Your task to perform on an android device: toggle javascript in the chrome app Image 0: 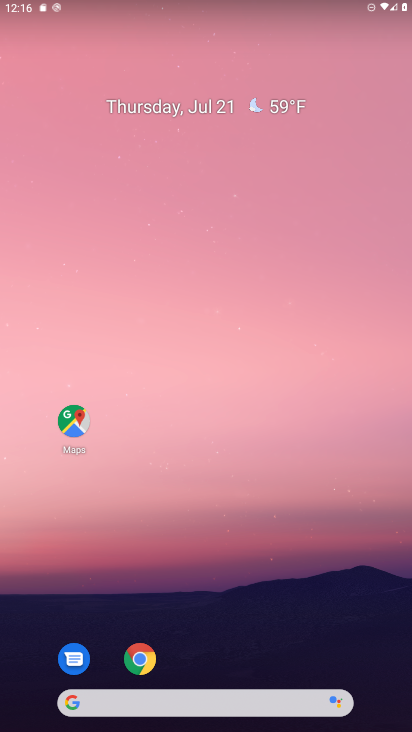
Step 0: press home button
Your task to perform on an android device: toggle javascript in the chrome app Image 1: 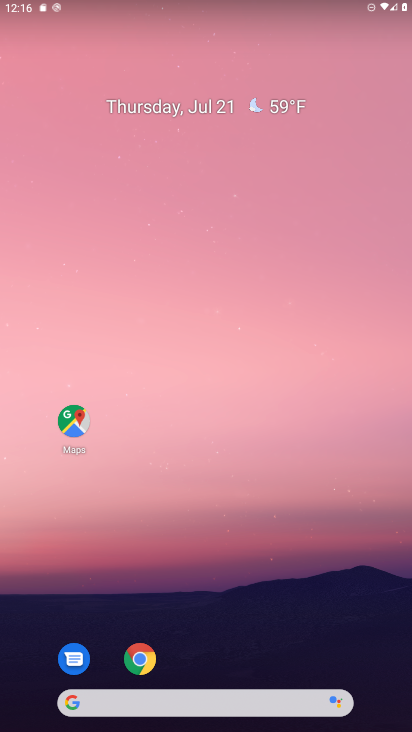
Step 1: click (136, 654)
Your task to perform on an android device: toggle javascript in the chrome app Image 2: 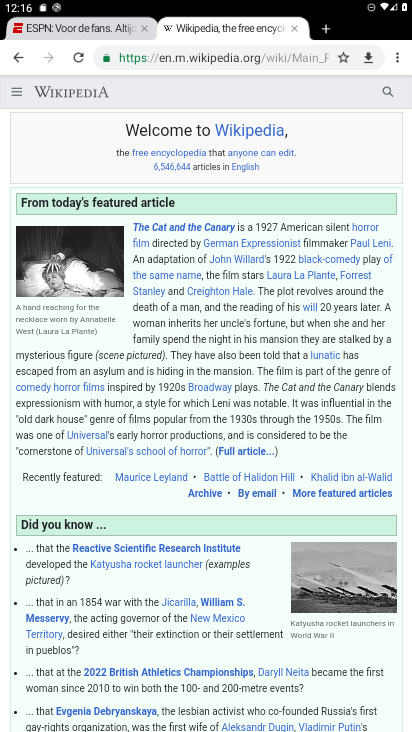
Step 2: click (397, 57)
Your task to perform on an android device: toggle javascript in the chrome app Image 3: 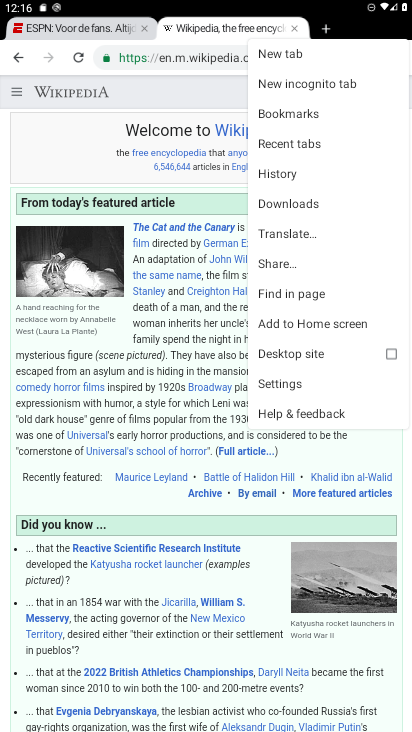
Step 3: click (273, 386)
Your task to perform on an android device: toggle javascript in the chrome app Image 4: 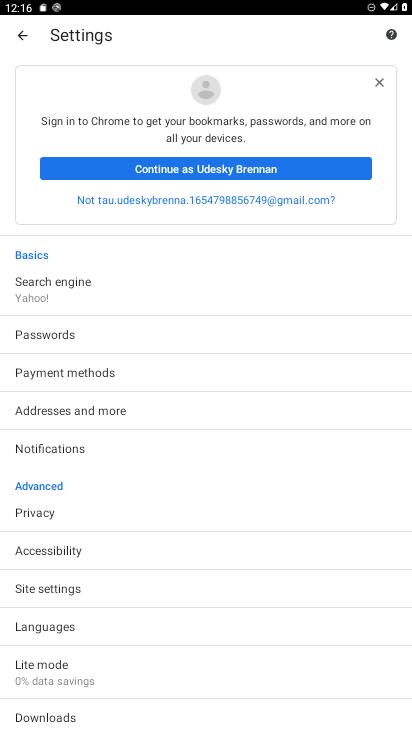
Step 4: click (67, 584)
Your task to perform on an android device: toggle javascript in the chrome app Image 5: 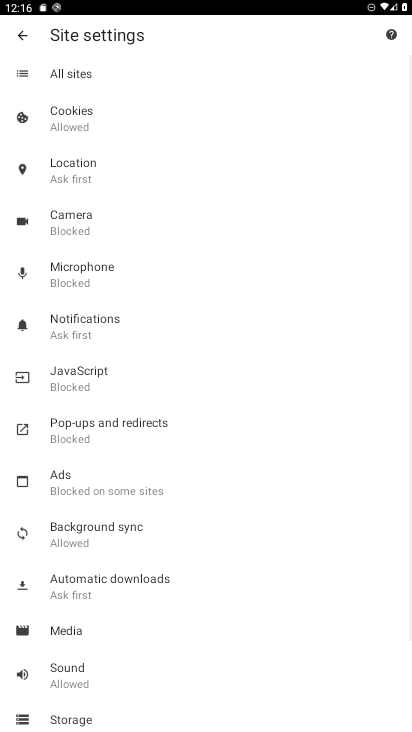
Step 5: click (85, 378)
Your task to perform on an android device: toggle javascript in the chrome app Image 6: 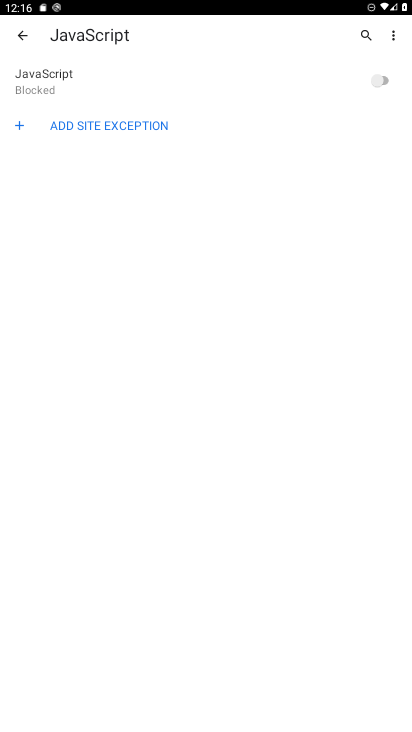
Step 6: click (378, 83)
Your task to perform on an android device: toggle javascript in the chrome app Image 7: 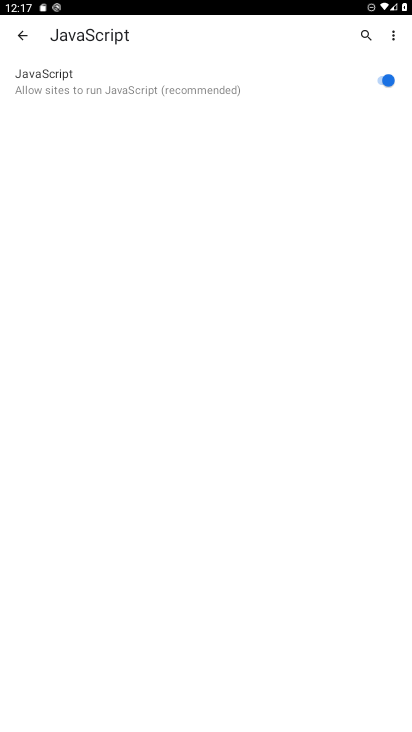
Step 7: task complete